Your task to perform on an android device: open a new tab in the chrome app Image 0: 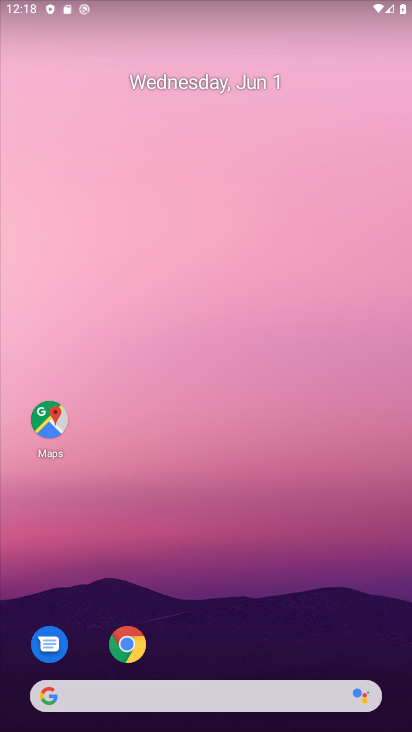
Step 0: press home button
Your task to perform on an android device: open a new tab in the chrome app Image 1: 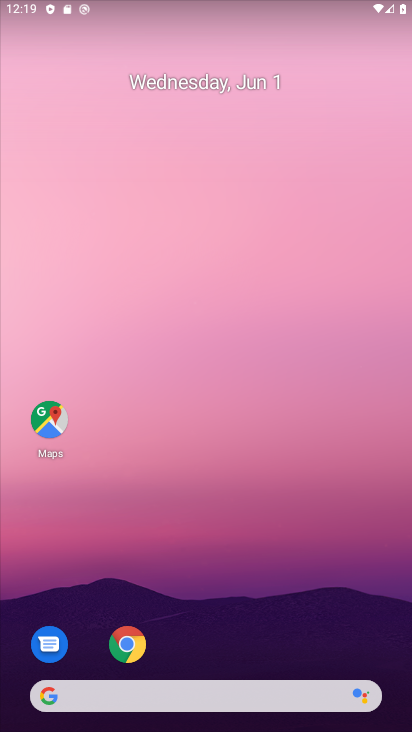
Step 1: click (127, 640)
Your task to perform on an android device: open a new tab in the chrome app Image 2: 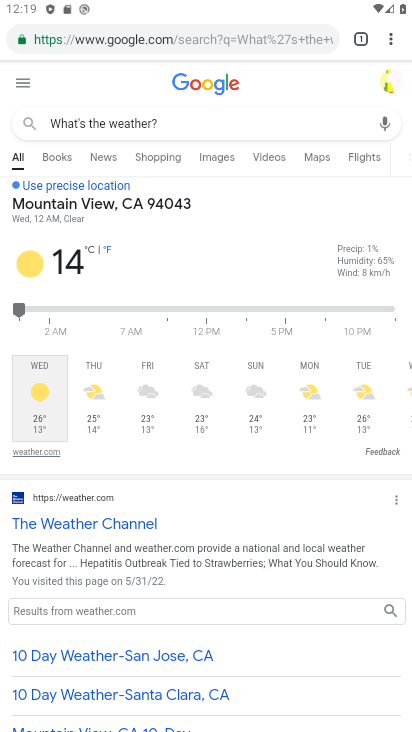
Step 2: task complete